Your task to perform on an android device: turn on wifi Image 0: 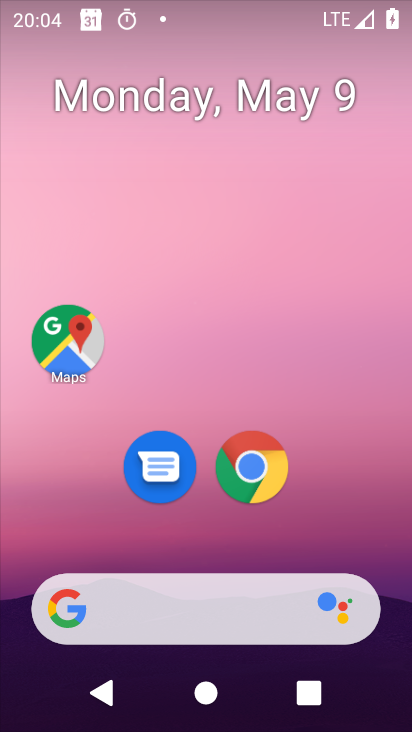
Step 0: drag from (319, 452) to (316, 36)
Your task to perform on an android device: turn on wifi Image 1: 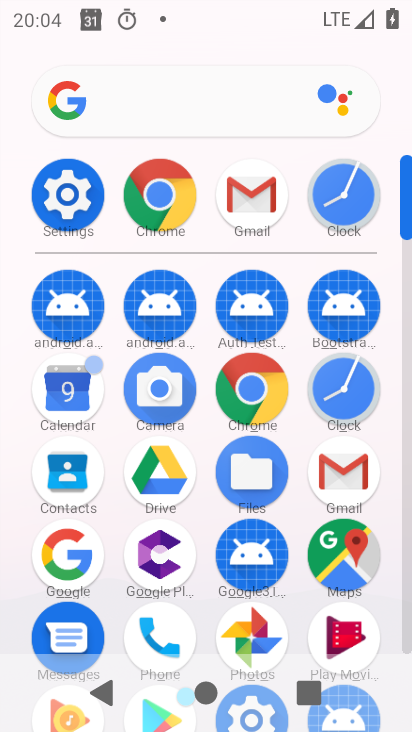
Step 1: click (87, 204)
Your task to perform on an android device: turn on wifi Image 2: 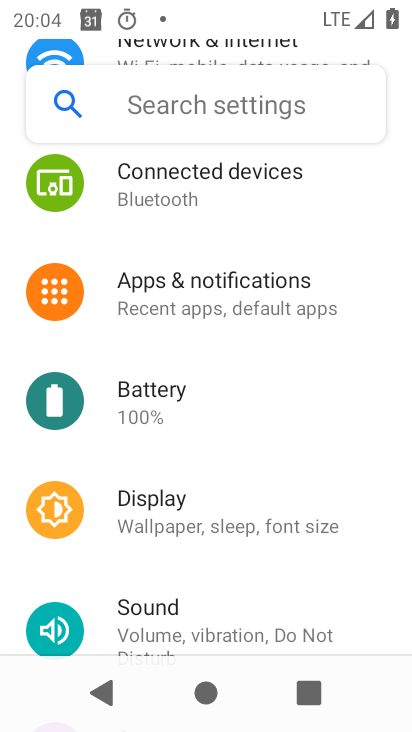
Step 2: drag from (197, 206) to (315, 655)
Your task to perform on an android device: turn on wifi Image 3: 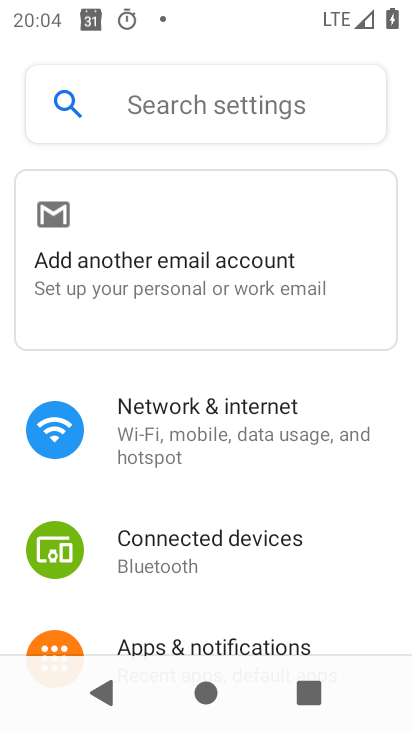
Step 3: click (178, 427)
Your task to perform on an android device: turn on wifi Image 4: 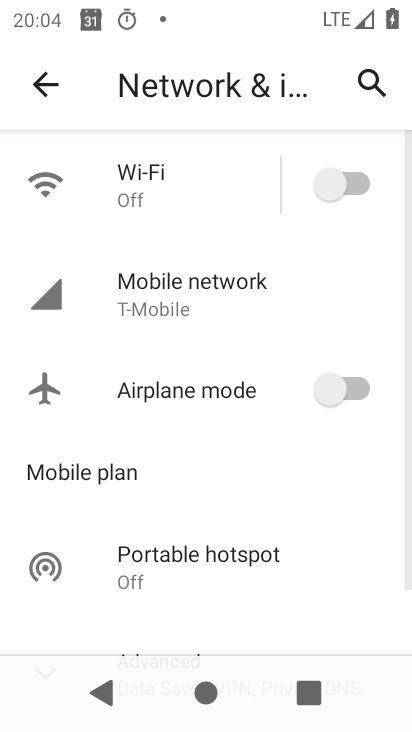
Step 4: click (345, 187)
Your task to perform on an android device: turn on wifi Image 5: 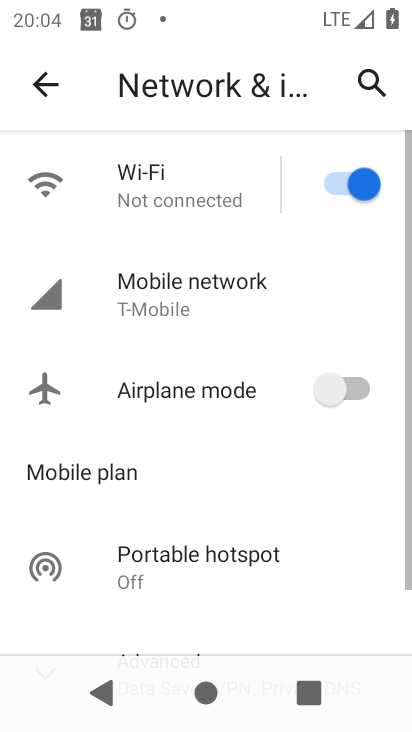
Step 5: task complete